Your task to perform on an android device: Is it going to rain this weekend? Image 0: 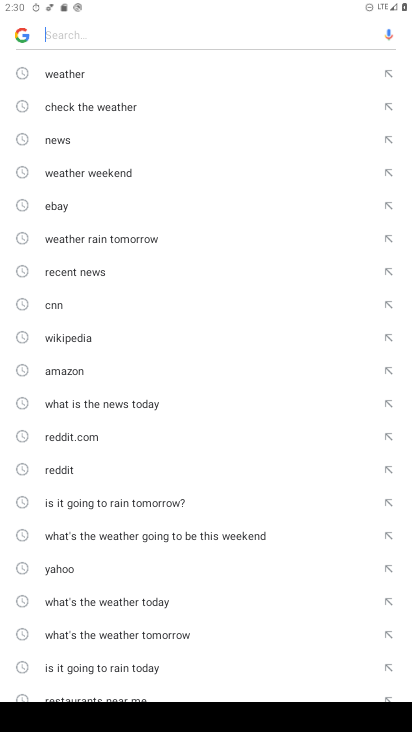
Step 0: press home button
Your task to perform on an android device: Is it going to rain this weekend? Image 1: 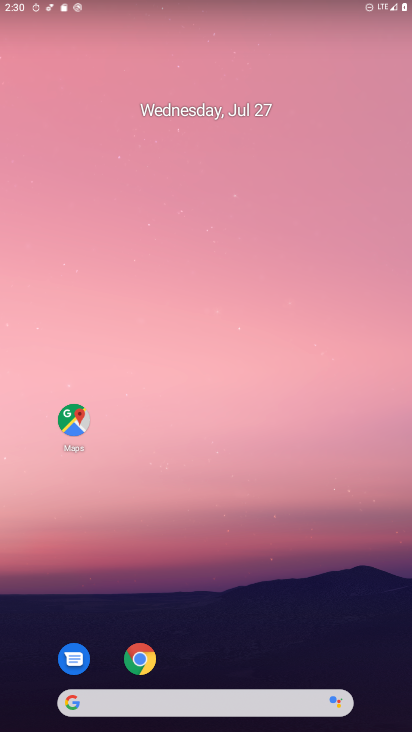
Step 1: drag from (240, 543) to (248, 74)
Your task to perform on an android device: Is it going to rain this weekend? Image 2: 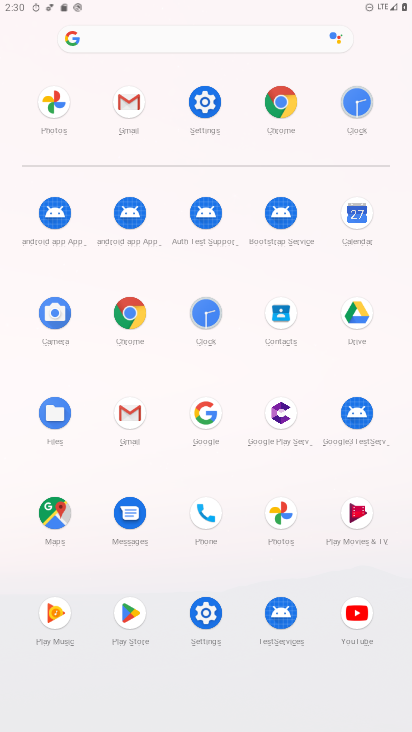
Step 2: click (278, 107)
Your task to perform on an android device: Is it going to rain this weekend? Image 3: 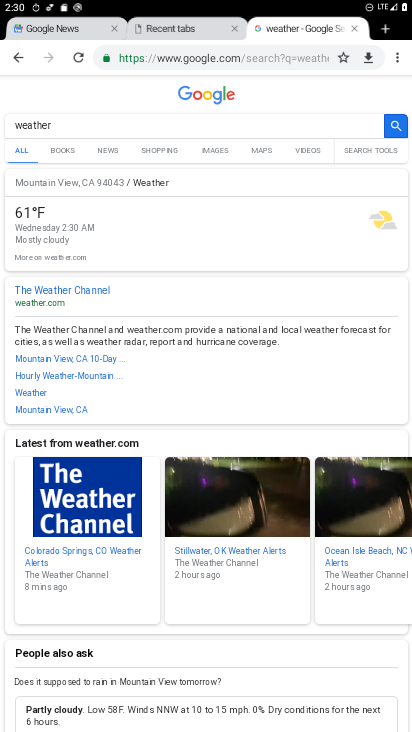
Step 3: click (256, 121)
Your task to perform on an android device: Is it going to rain this weekend? Image 4: 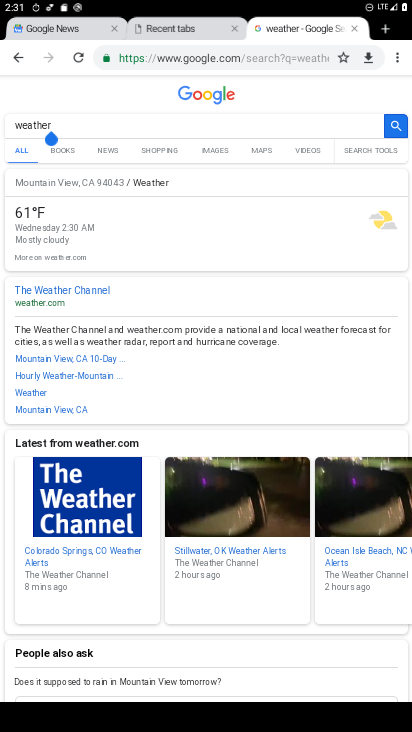
Step 4: type " weekend"
Your task to perform on an android device: Is it going to rain this weekend? Image 5: 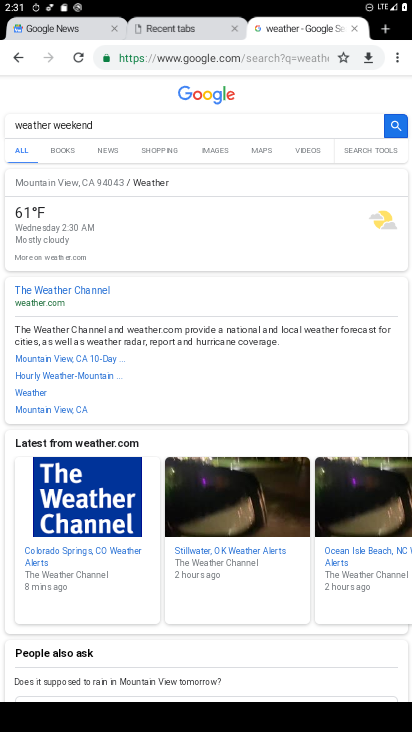
Step 5: click (394, 132)
Your task to perform on an android device: Is it going to rain this weekend? Image 6: 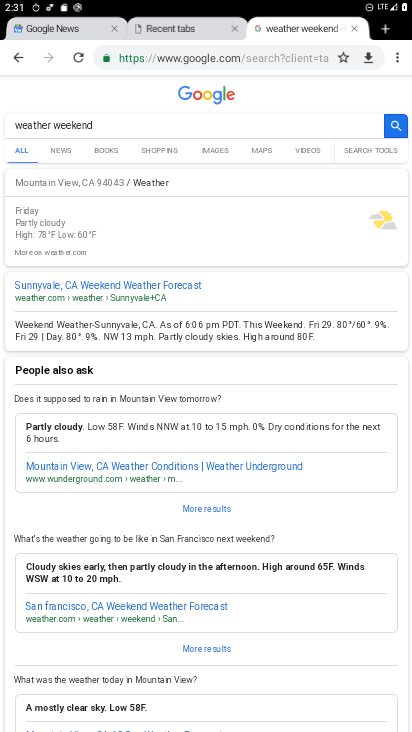
Step 6: task complete